Your task to perform on an android device: turn on improve location accuracy Image 0: 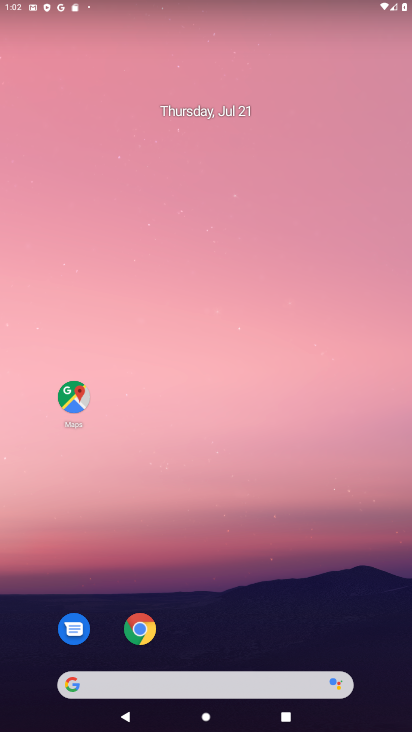
Step 0: drag from (201, 646) to (261, 61)
Your task to perform on an android device: turn on improve location accuracy Image 1: 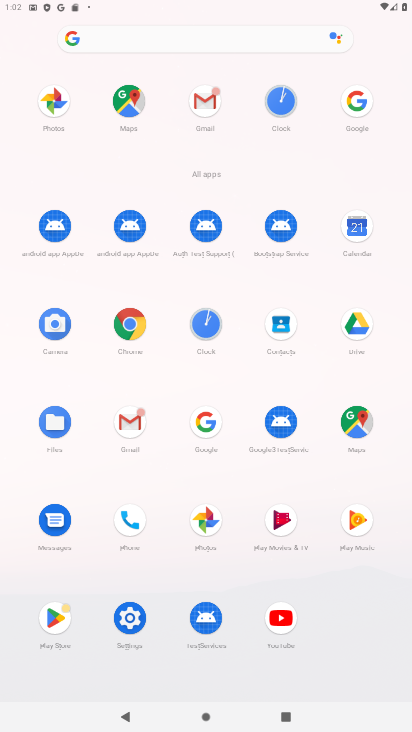
Step 1: click (126, 632)
Your task to perform on an android device: turn on improve location accuracy Image 2: 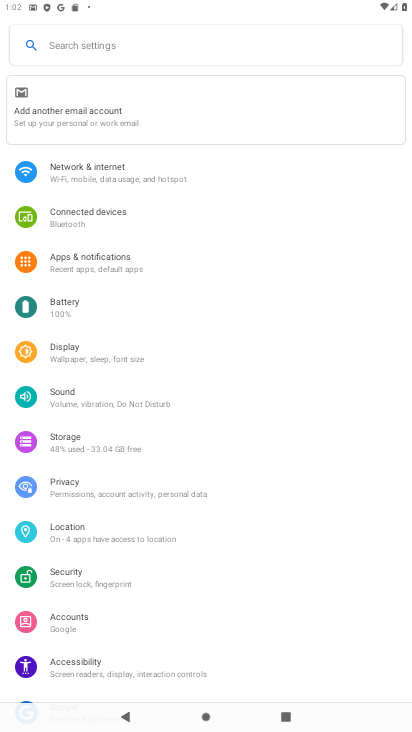
Step 2: click (86, 536)
Your task to perform on an android device: turn on improve location accuracy Image 3: 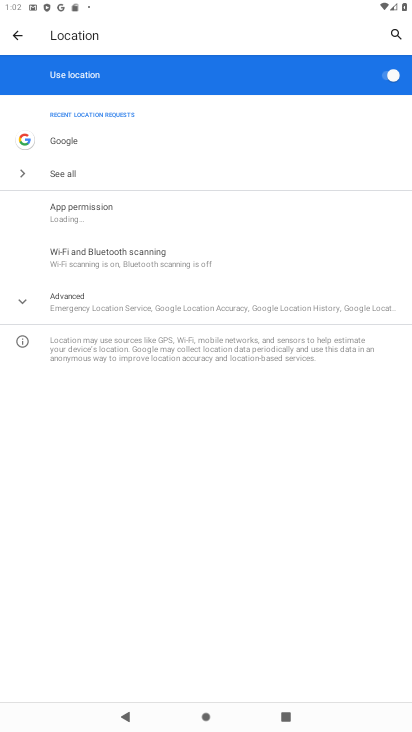
Step 3: click (84, 299)
Your task to perform on an android device: turn on improve location accuracy Image 4: 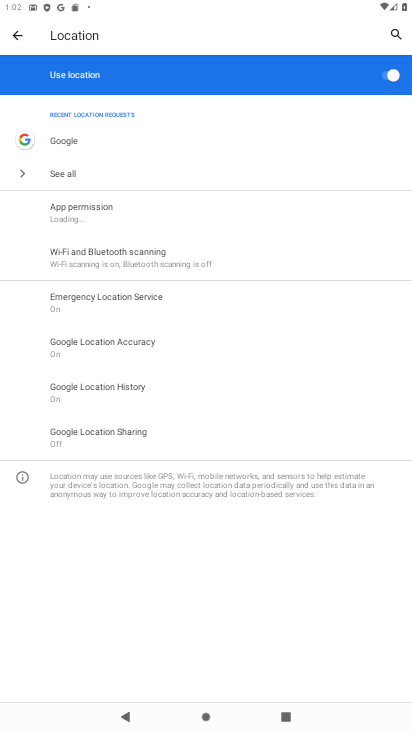
Step 4: click (117, 346)
Your task to perform on an android device: turn on improve location accuracy Image 5: 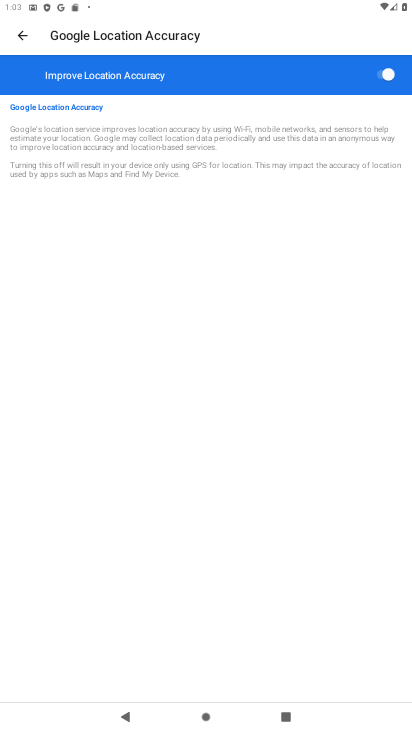
Step 5: task complete